Your task to perform on an android device: turn off airplane mode Image 0: 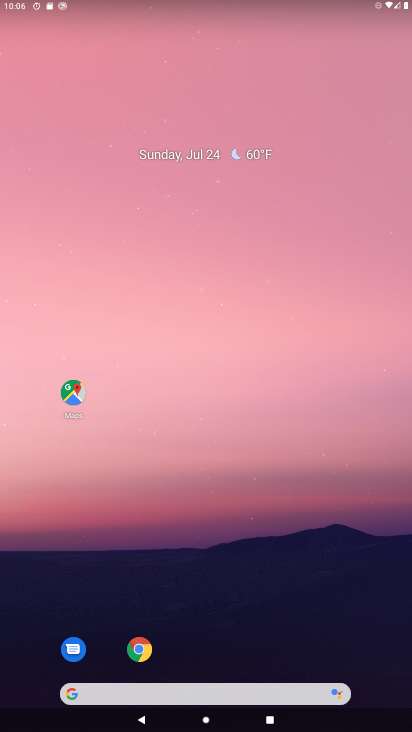
Step 0: drag from (366, 641) to (244, 88)
Your task to perform on an android device: turn off airplane mode Image 1: 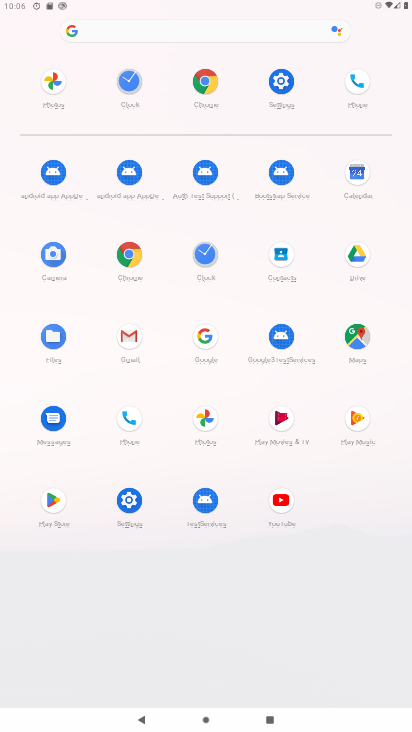
Step 1: click (285, 80)
Your task to perform on an android device: turn off airplane mode Image 2: 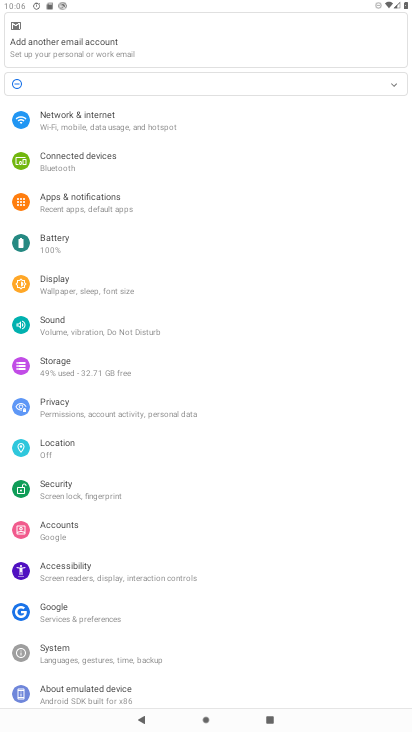
Step 2: click (99, 129)
Your task to perform on an android device: turn off airplane mode Image 3: 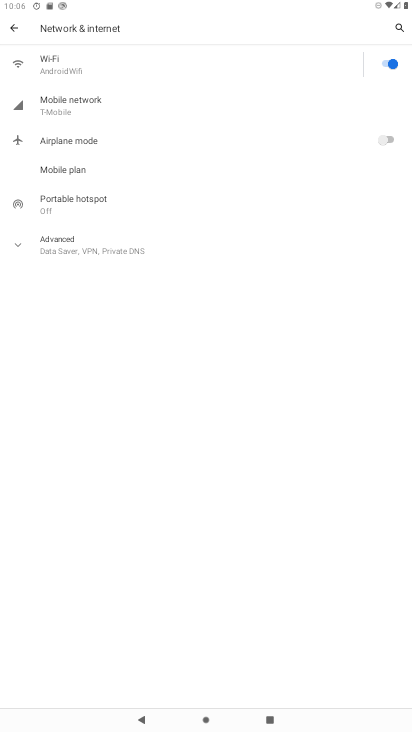
Step 3: task complete